Your task to perform on an android device: Open Android settings Image 0: 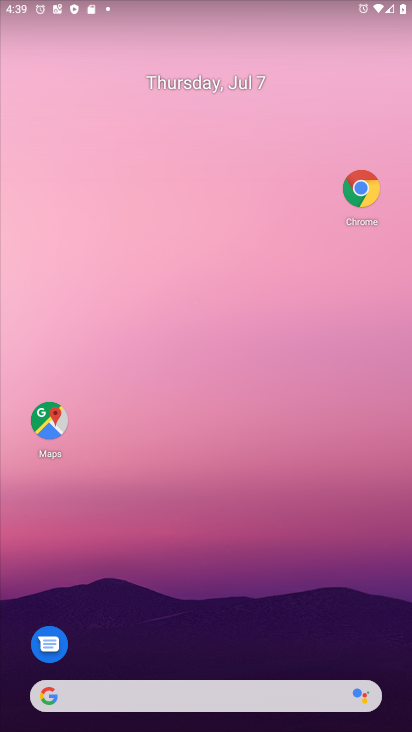
Step 0: press home button
Your task to perform on an android device: Open Android settings Image 1: 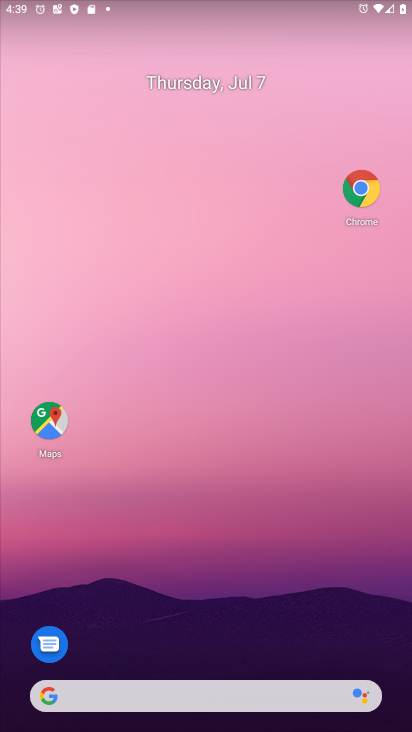
Step 1: drag from (196, 622) to (155, 39)
Your task to perform on an android device: Open Android settings Image 2: 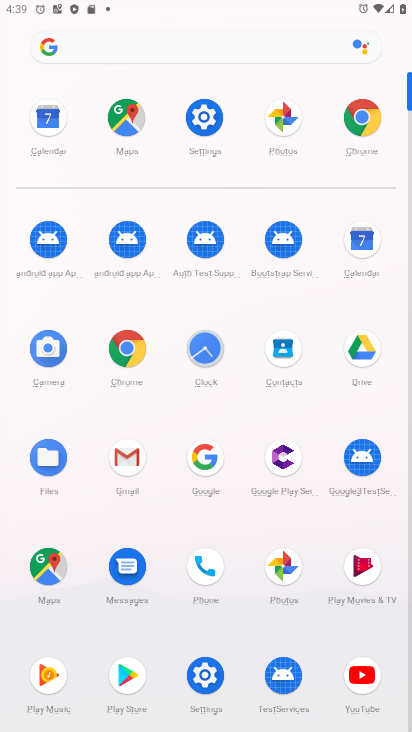
Step 2: click (194, 94)
Your task to perform on an android device: Open Android settings Image 3: 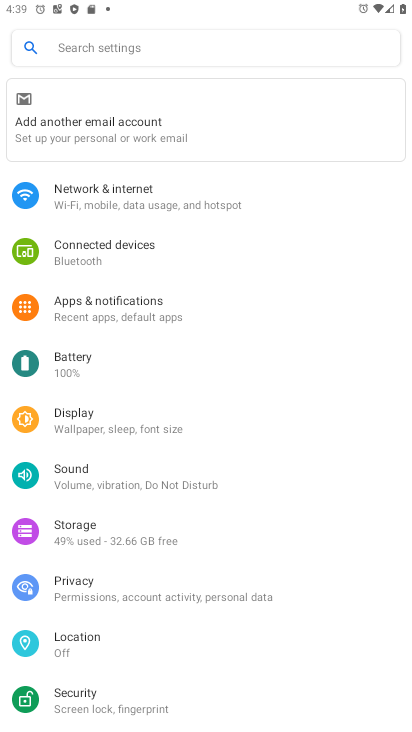
Step 3: drag from (86, 498) to (20, 114)
Your task to perform on an android device: Open Android settings Image 4: 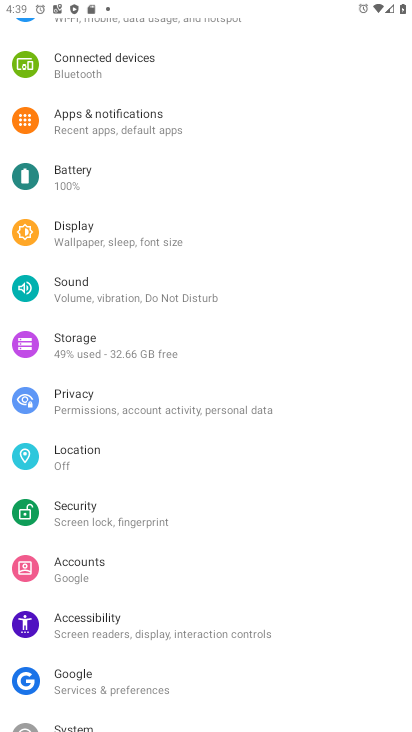
Step 4: drag from (70, 645) to (180, 226)
Your task to perform on an android device: Open Android settings Image 5: 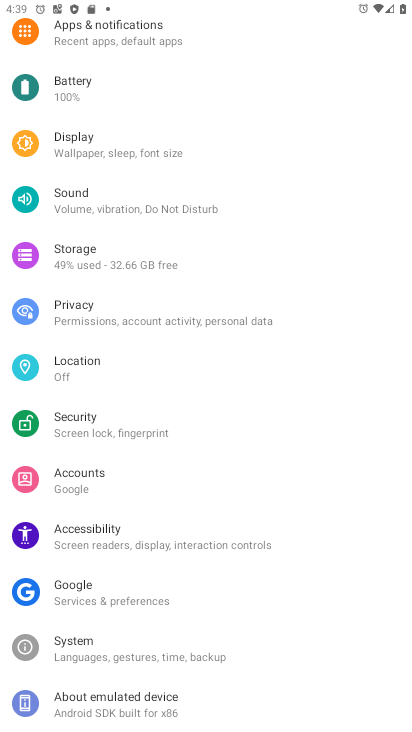
Step 5: click (103, 715)
Your task to perform on an android device: Open Android settings Image 6: 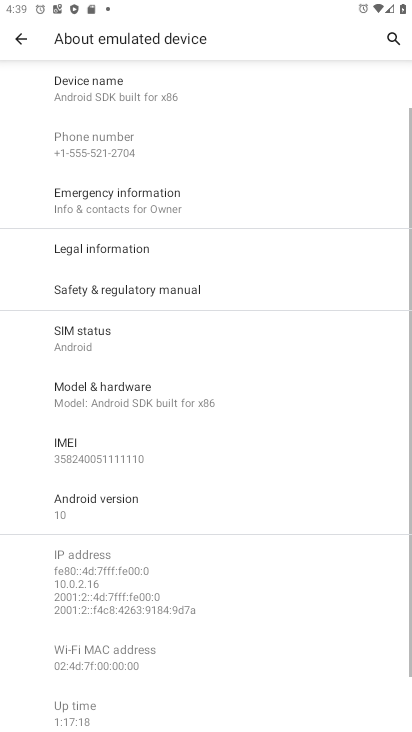
Step 6: click (83, 519)
Your task to perform on an android device: Open Android settings Image 7: 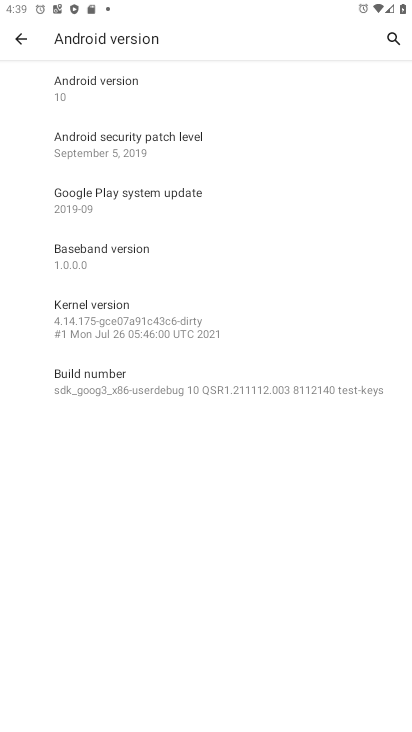
Step 7: click (139, 103)
Your task to perform on an android device: Open Android settings Image 8: 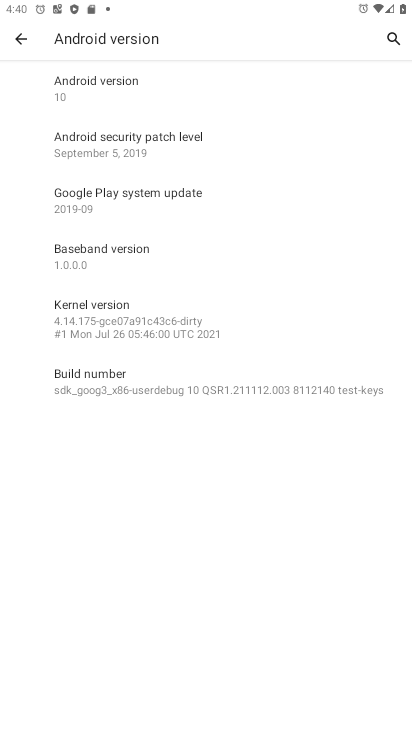
Step 8: task complete